Your task to perform on an android device: toggle improve location accuracy Image 0: 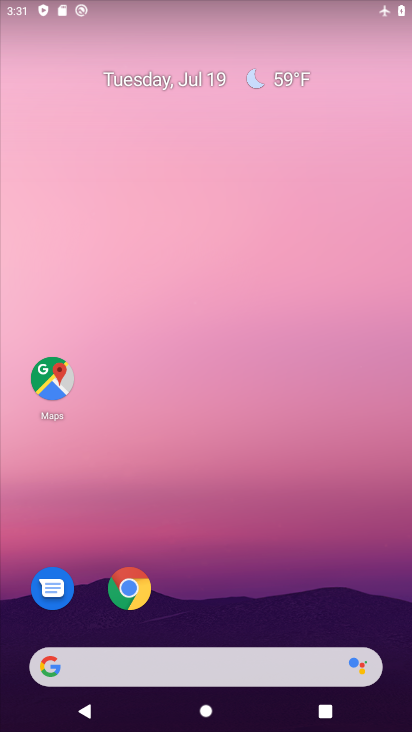
Step 0: press home button
Your task to perform on an android device: toggle improve location accuracy Image 1: 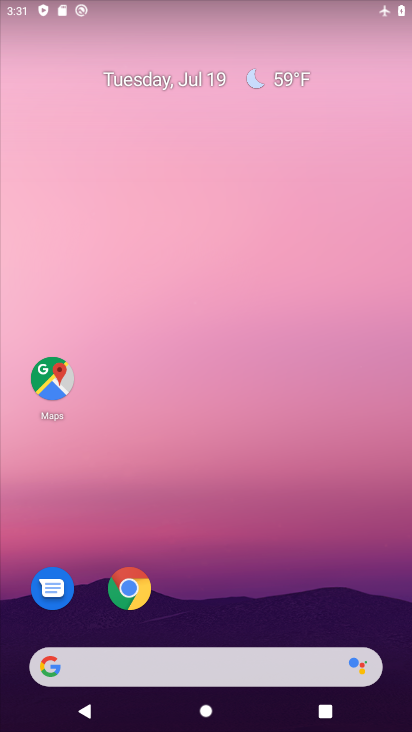
Step 1: drag from (278, 590) to (371, 153)
Your task to perform on an android device: toggle improve location accuracy Image 2: 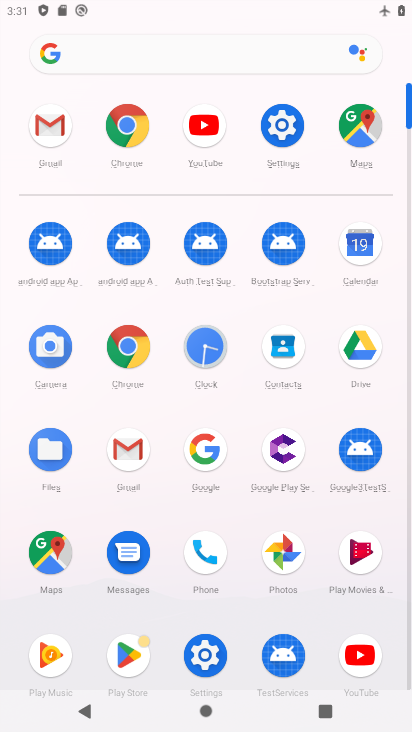
Step 2: click (298, 126)
Your task to perform on an android device: toggle improve location accuracy Image 3: 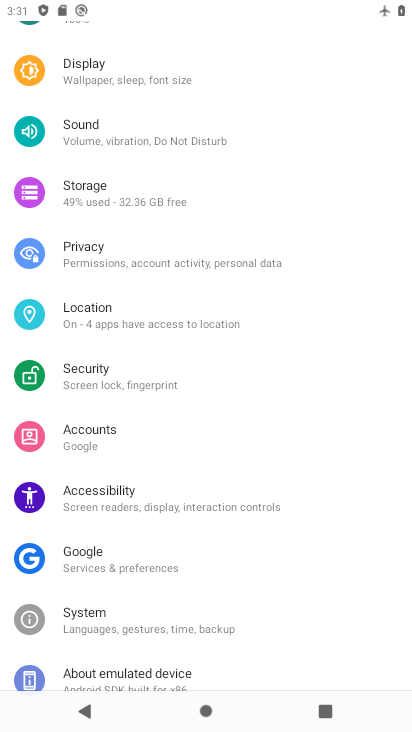
Step 3: click (99, 314)
Your task to perform on an android device: toggle improve location accuracy Image 4: 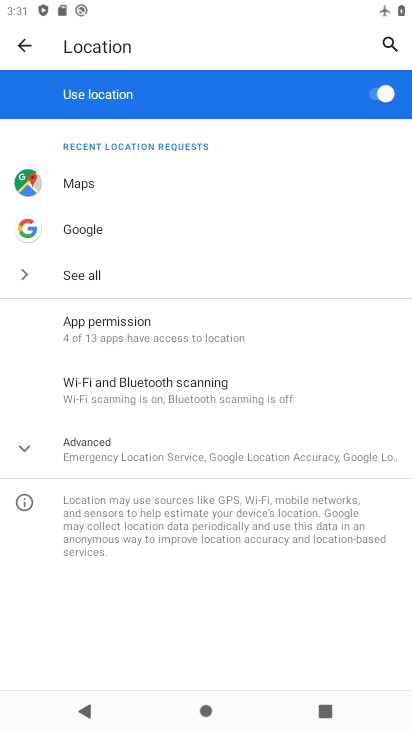
Step 4: click (93, 451)
Your task to perform on an android device: toggle improve location accuracy Image 5: 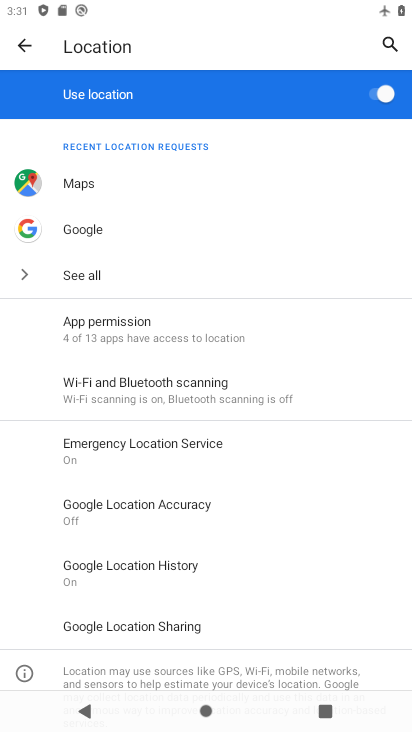
Step 5: click (121, 504)
Your task to perform on an android device: toggle improve location accuracy Image 6: 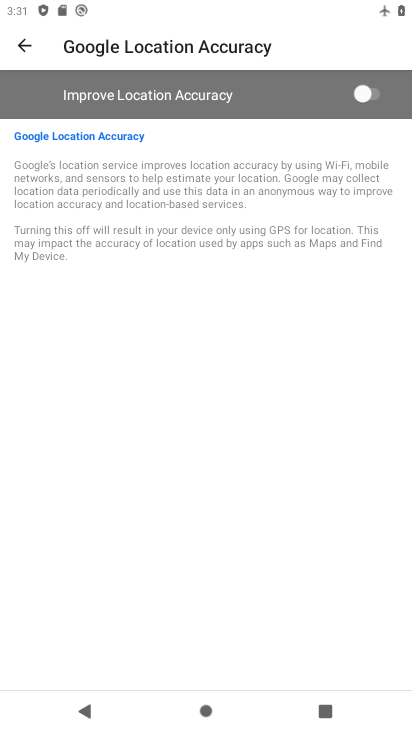
Step 6: click (366, 103)
Your task to perform on an android device: toggle improve location accuracy Image 7: 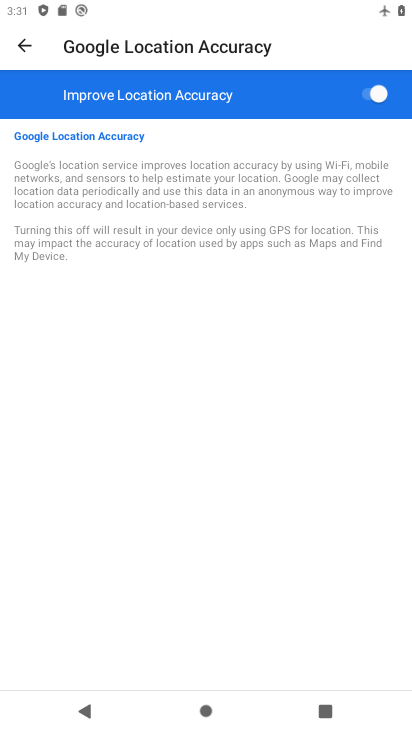
Step 7: task complete